Your task to perform on an android device: Go to eBay Image 0: 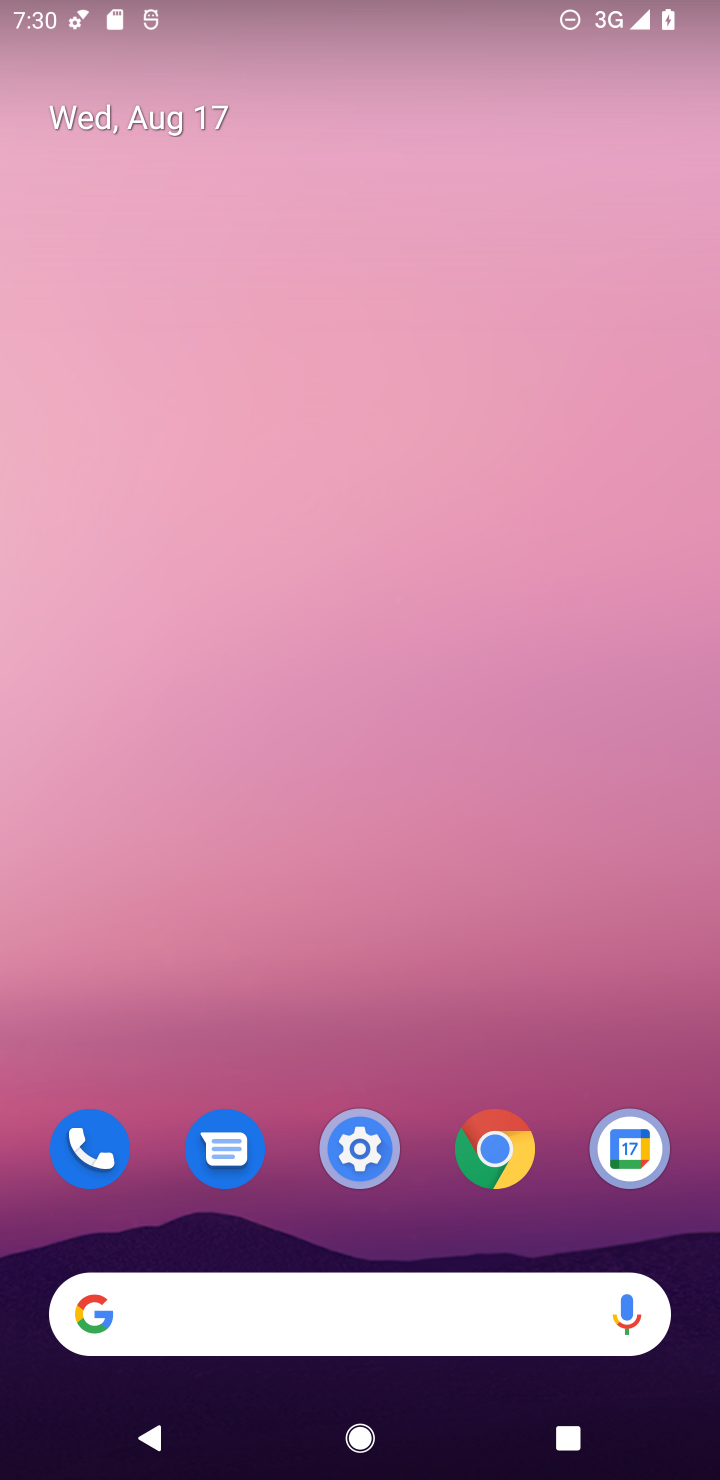
Step 0: click (496, 1153)
Your task to perform on an android device: Go to eBay Image 1: 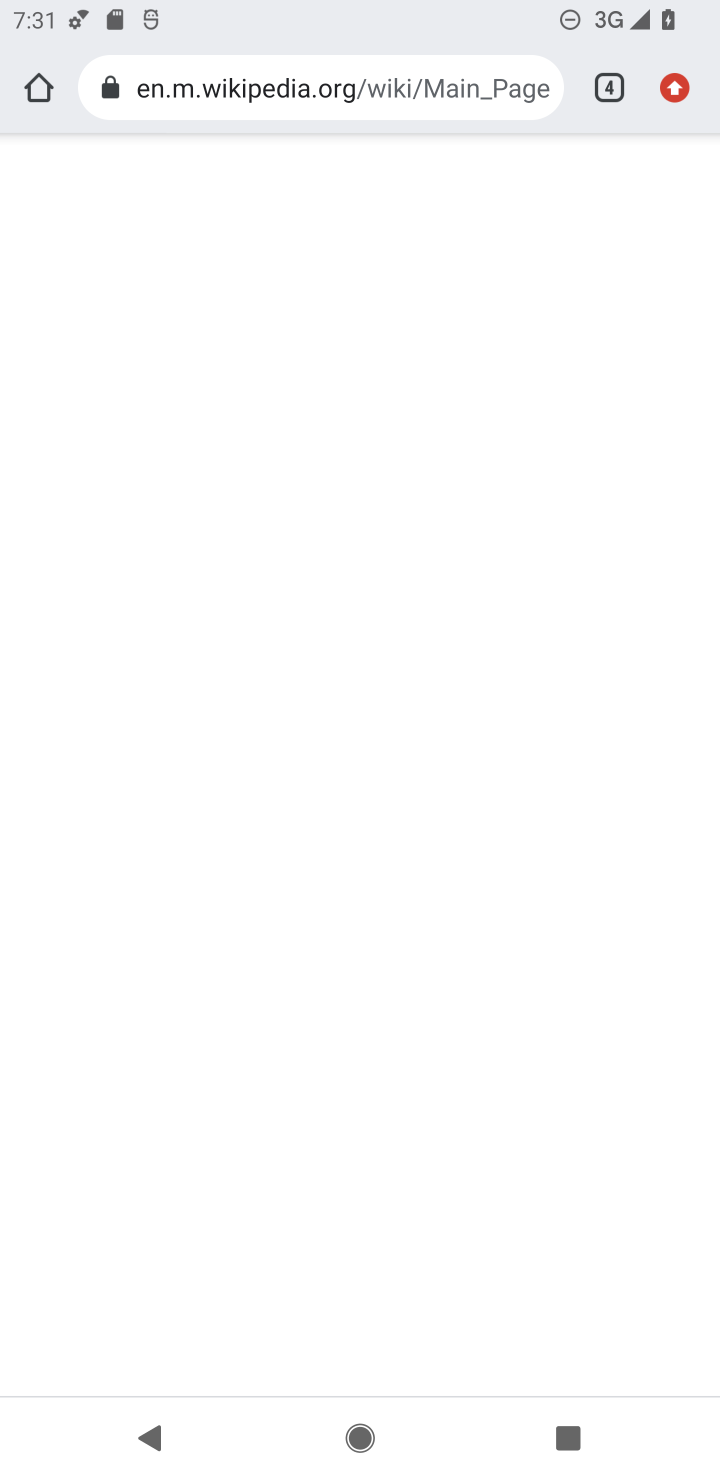
Step 1: click (665, 77)
Your task to perform on an android device: Go to eBay Image 2: 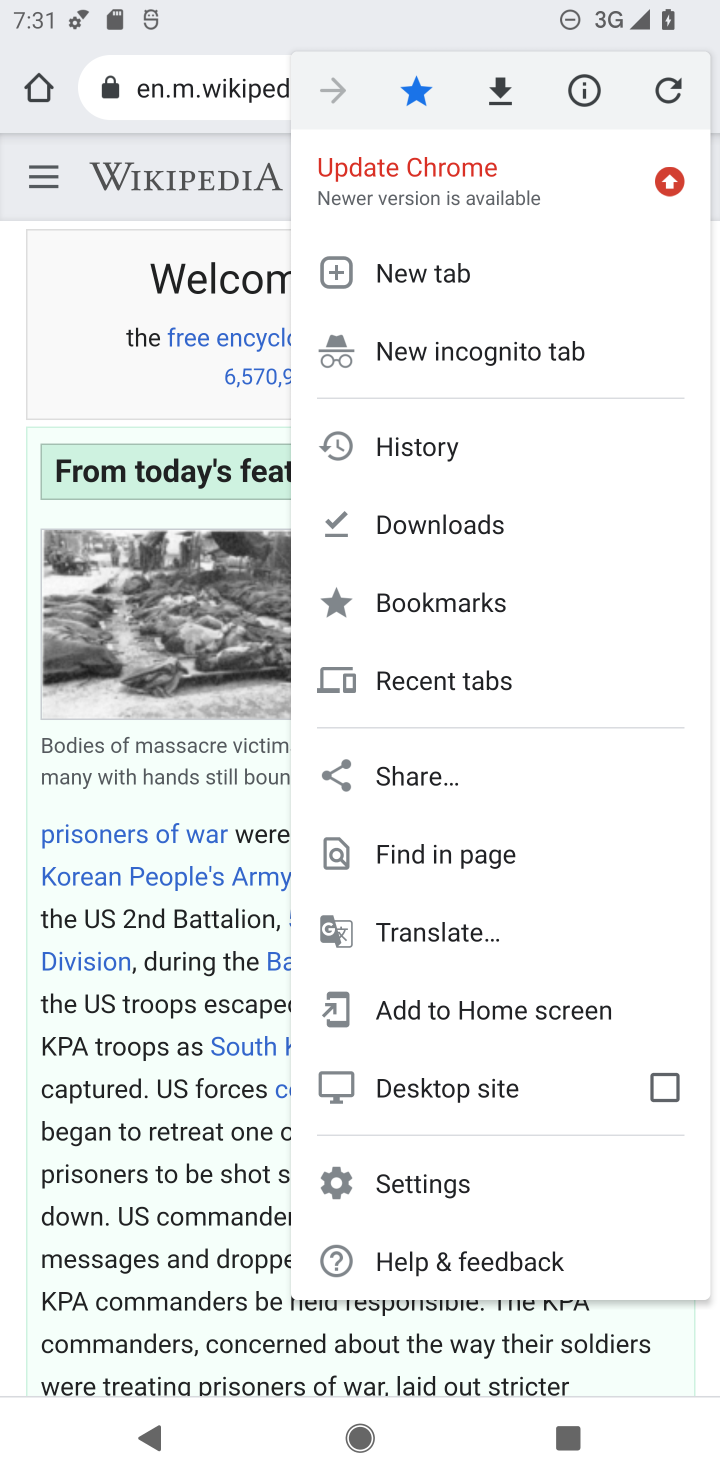
Step 2: click (402, 269)
Your task to perform on an android device: Go to eBay Image 3: 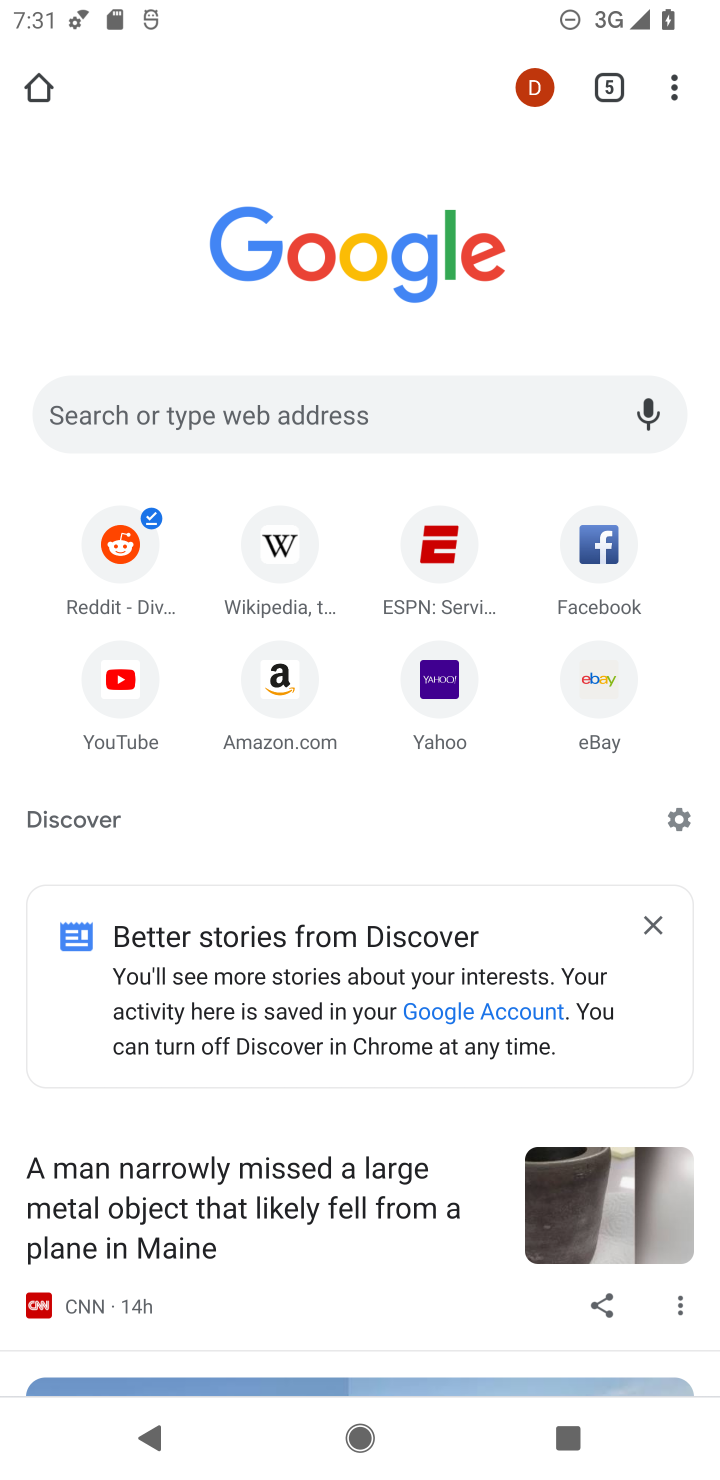
Step 3: click (605, 695)
Your task to perform on an android device: Go to eBay Image 4: 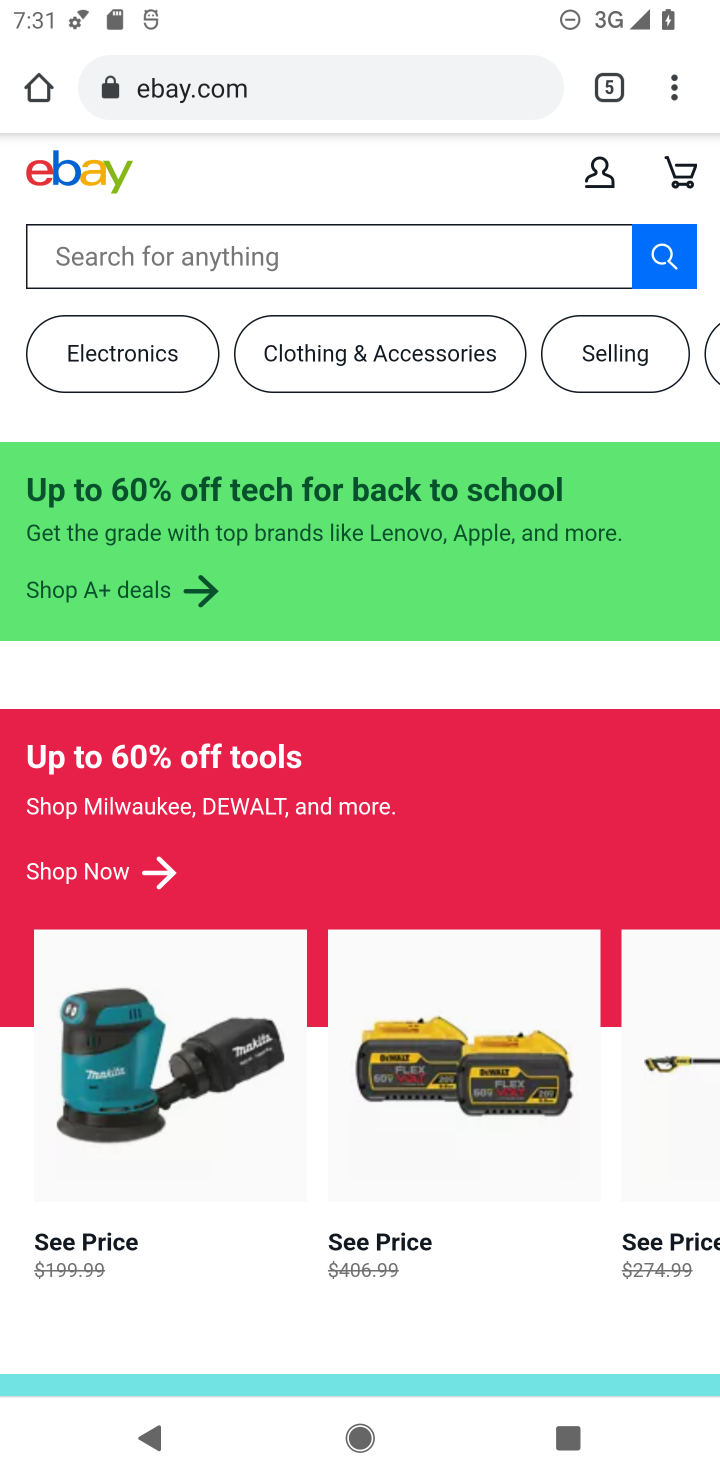
Step 4: task complete